Your task to perform on an android device: Open settings Image 0: 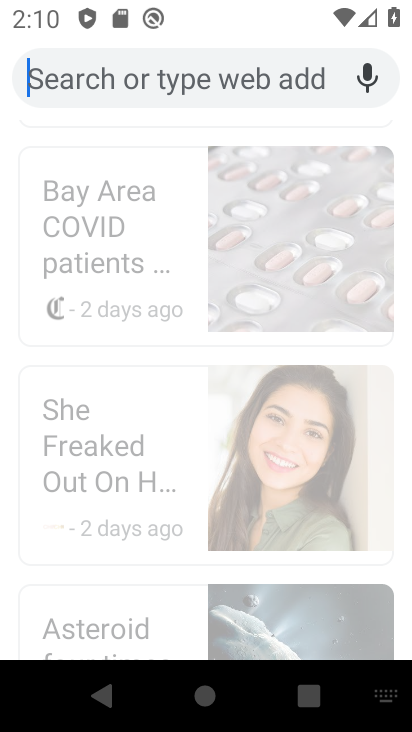
Step 0: press home button
Your task to perform on an android device: Open settings Image 1: 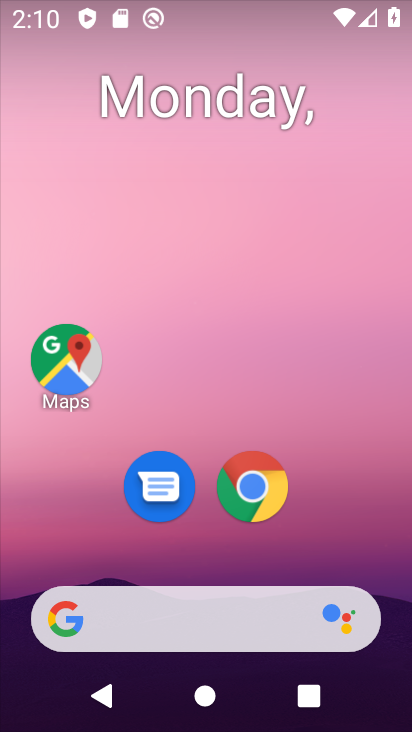
Step 1: drag from (204, 686) to (197, 238)
Your task to perform on an android device: Open settings Image 2: 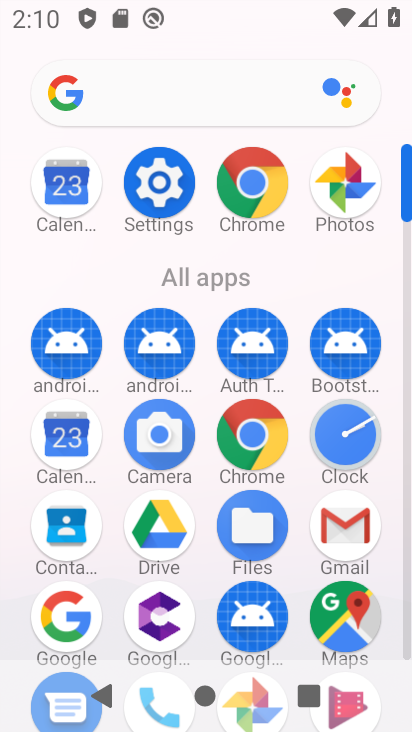
Step 2: click (153, 213)
Your task to perform on an android device: Open settings Image 3: 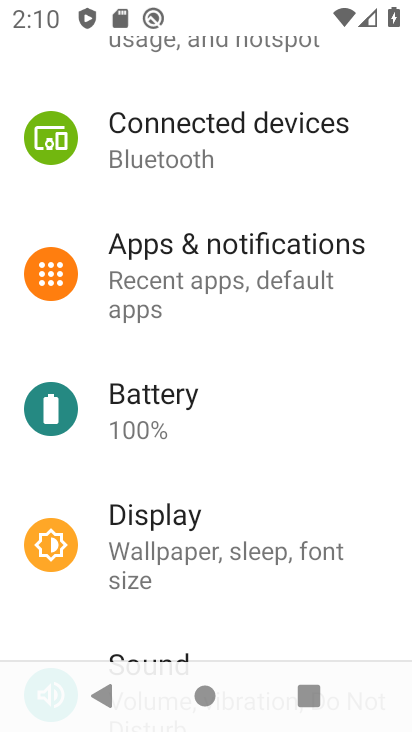
Step 3: task complete